Your task to perform on an android device: Show me the alarms in the clock app Image 0: 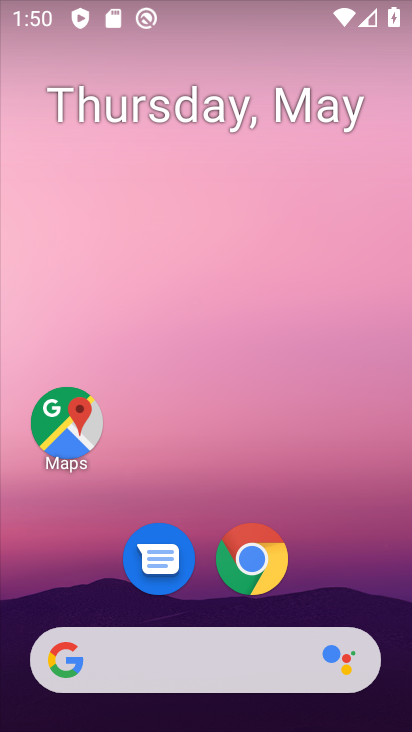
Step 0: drag from (208, 600) to (200, 188)
Your task to perform on an android device: Show me the alarms in the clock app Image 1: 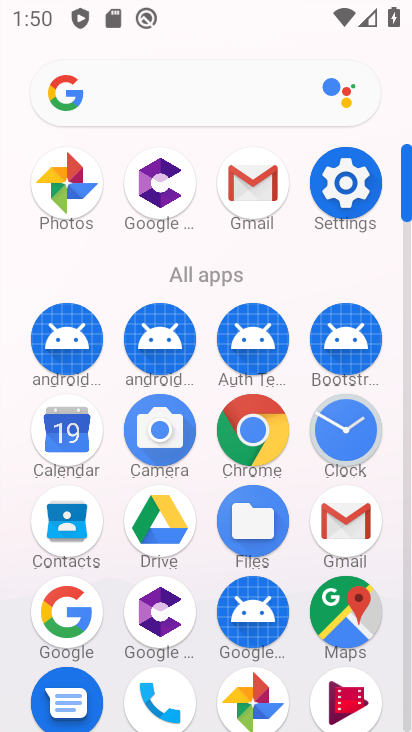
Step 1: click (339, 430)
Your task to perform on an android device: Show me the alarms in the clock app Image 2: 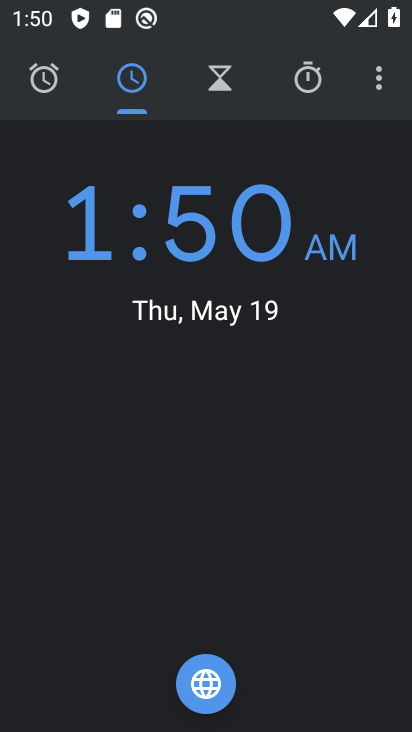
Step 2: click (55, 88)
Your task to perform on an android device: Show me the alarms in the clock app Image 3: 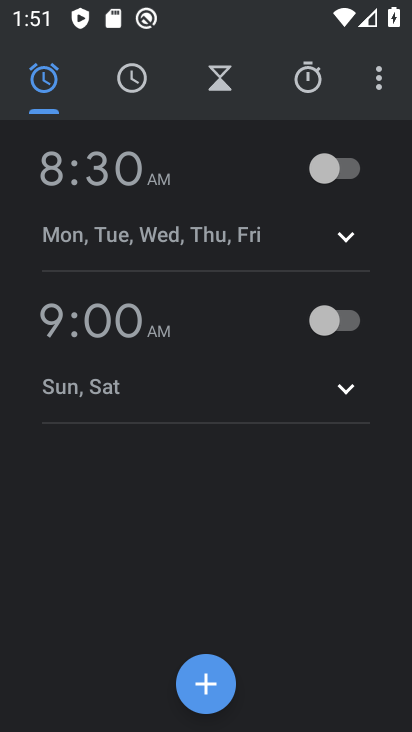
Step 3: click (382, 72)
Your task to perform on an android device: Show me the alarms in the clock app Image 4: 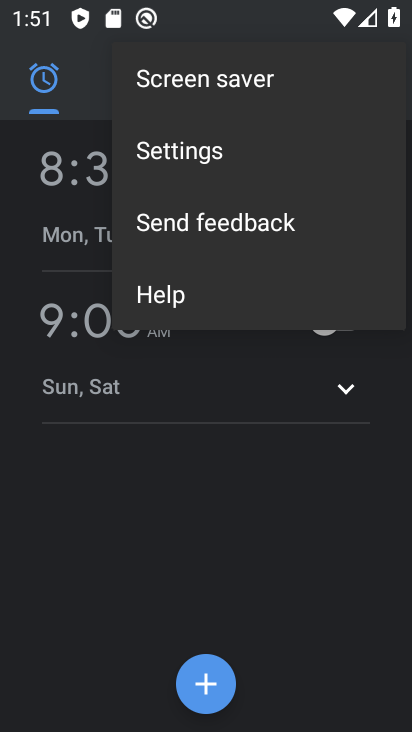
Step 4: click (180, 538)
Your task to perform on an android device: Show me the alarms in the clock app Image 5: 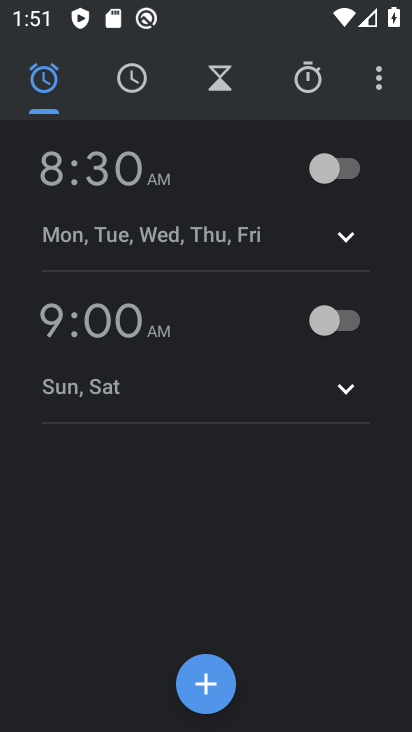
Step 5: task complete